Your task to perform on an android device: change alarm snooze length Image 0: 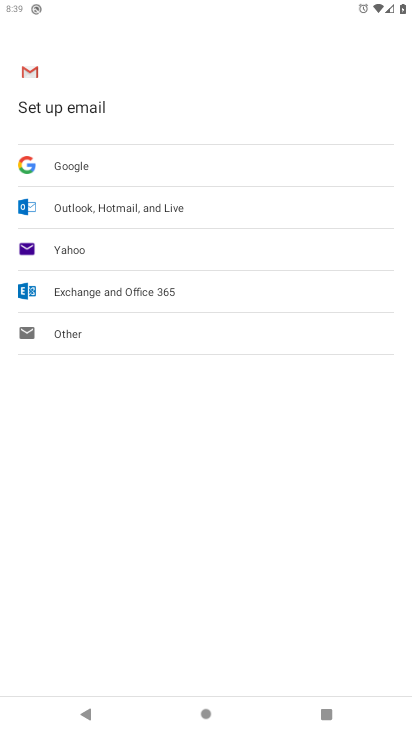
Step 0: press home button
Your task to perform on an android device: change alarm snooze length Image 1: 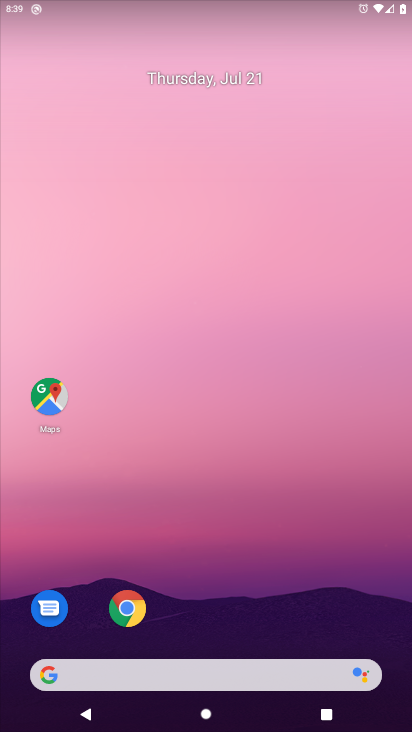
Step 1: drag from (21, 702) to (237, 82)
Your task to perform on an android device: change alarm snooze length Image 2: 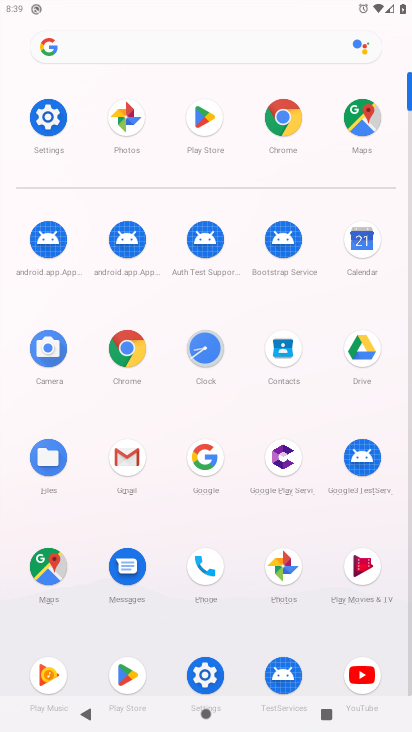
Step 2: click (203, 676)
Your task to perform on an android device: change alarm snooze length Image 3: 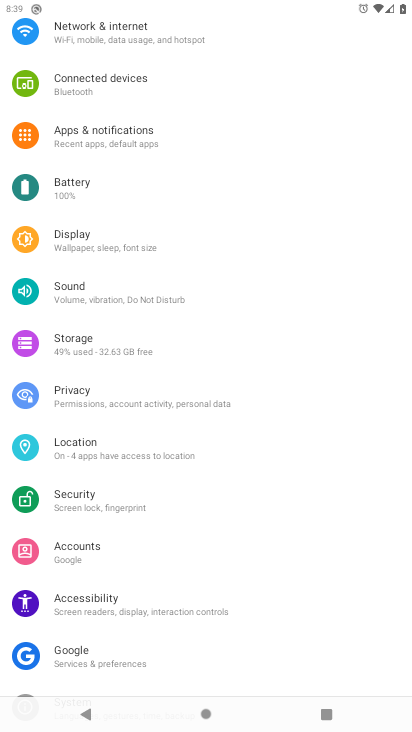
Step 3: press home button
Your task to perform on an android device: change alarm snooze length Image 4: 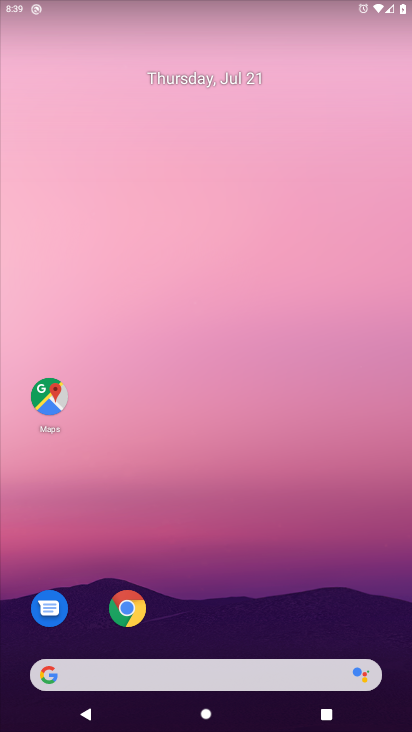
Step 4: drag from (28, 694) to (141, 182)
Your task to perform on an android device: change alarm snooze length Image 5: 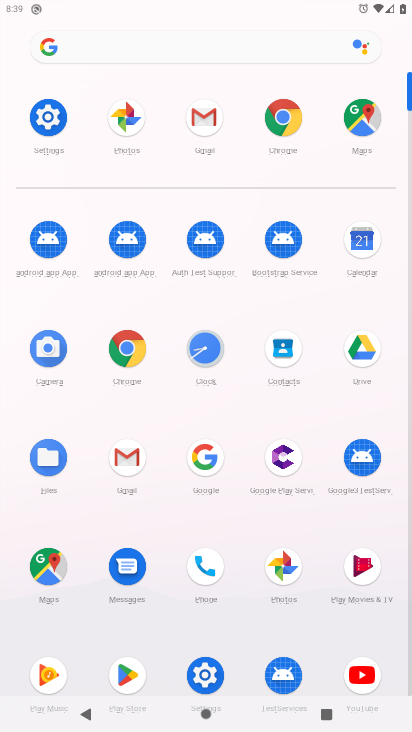
Step 5: click (202, 351)
Your task to perform on an android device: change alarm snooze length Image 6: 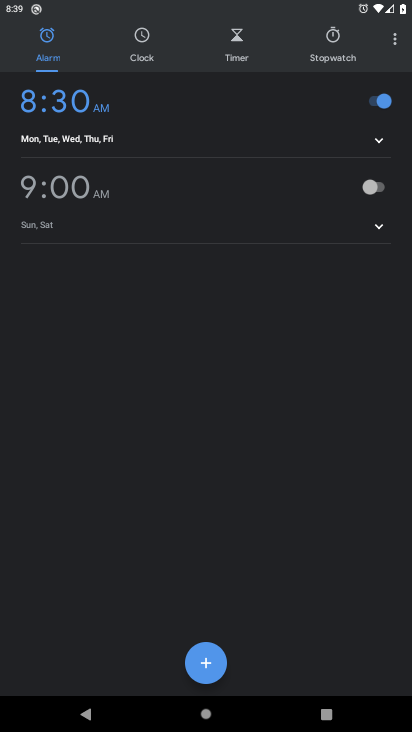
Step 6: click (390, 47)
Your task to perform on an android device: change alarm snooze length Image 7: 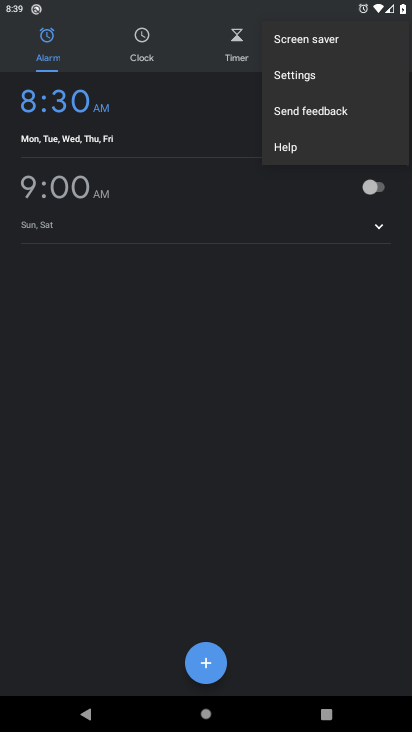
Step 7: click (300, 79)
Your task to perform on an android device: change alarm snooze length Image 8: 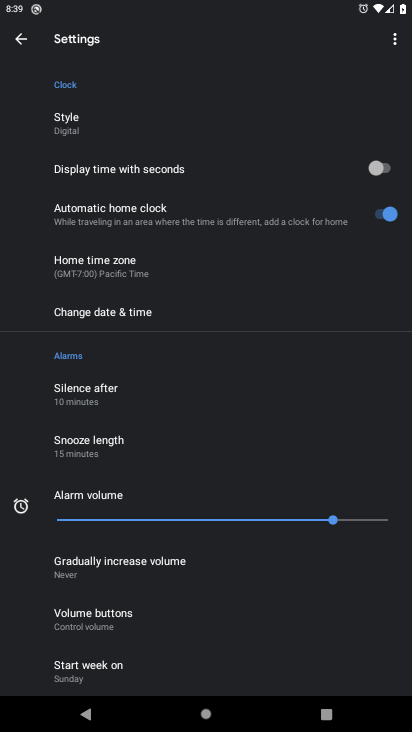
Step 8: click (66, 448)
Your task to perform on an android device: change alarm snooze length Image 9: 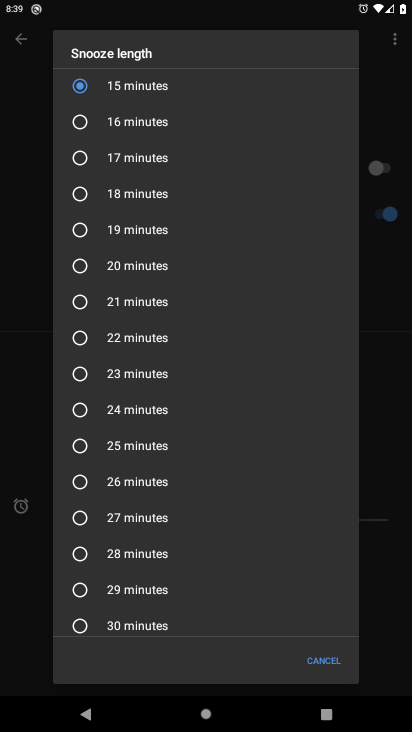
Step 9: click (77, 195)
Your task to perform on an android device: change alarm snooze length Image 10: 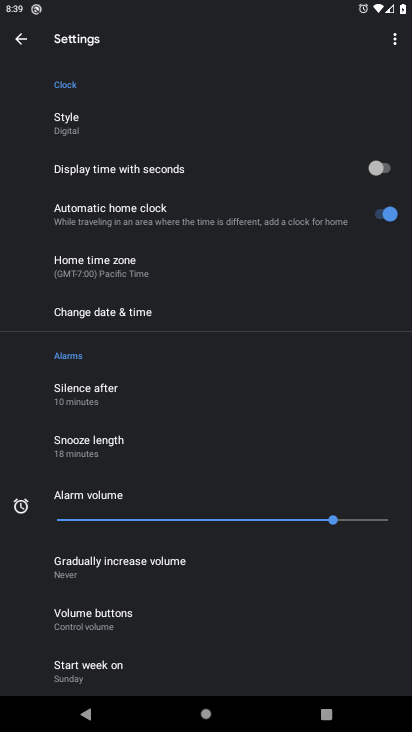
Step 10: task complete